Your task to perform on an android device: Open Google Maps Image 0: 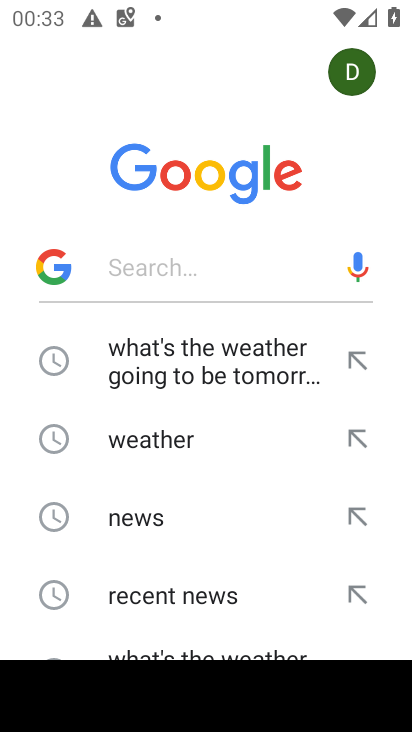
Step 0: press home button
Your task to perform on an android device: Open Google Maps Image 1: 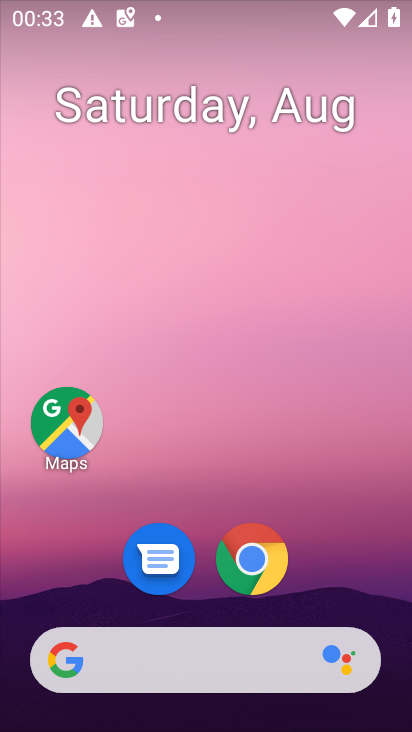
Step 1: click (59, 421)
Your task to perform on an android device: Open Google Maps Image 2: 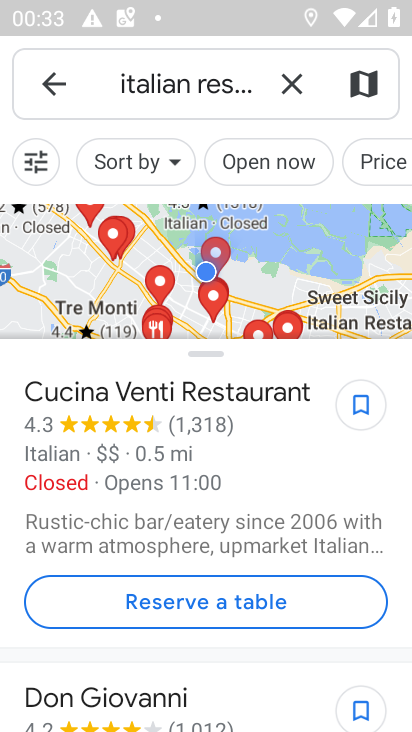
Step 2: task complete